Your task to perform on an android device: Open Android settings Image 0: 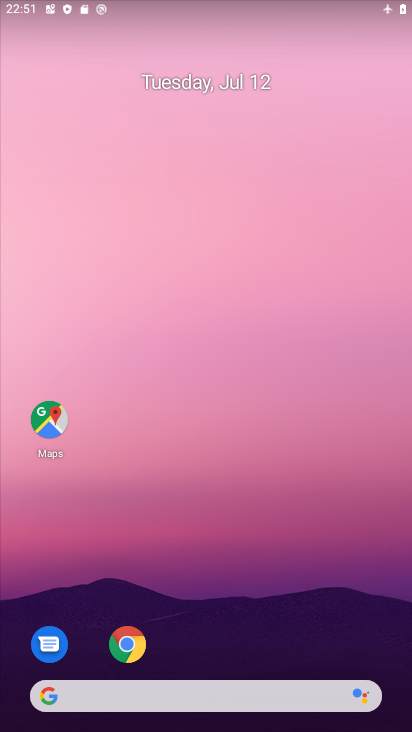
Step 0: drag from (125, 724) to (273, 4)
Your task to perform on an android device: Open Android settings Image 1: 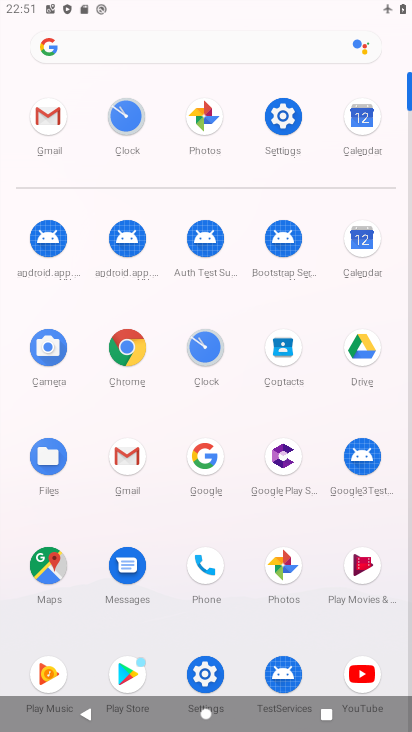
Step 1: click (288, 105)
Your task to perform on an android device: Open Android settings Image 2: 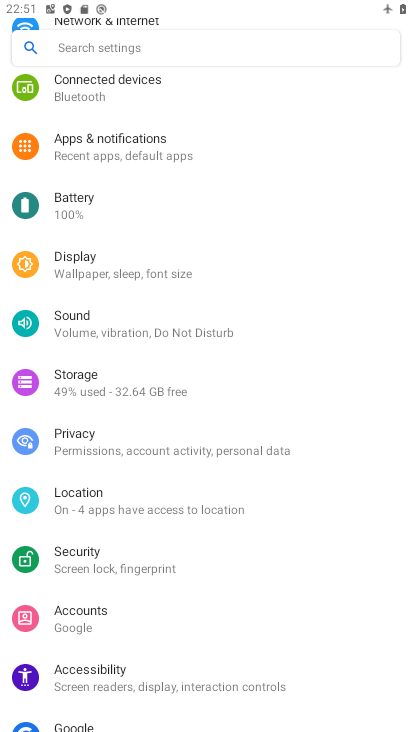
Step 2: drag from (292, 715) to (351, 29)
Your task to perform on an android device: Open Android settings Image 3: 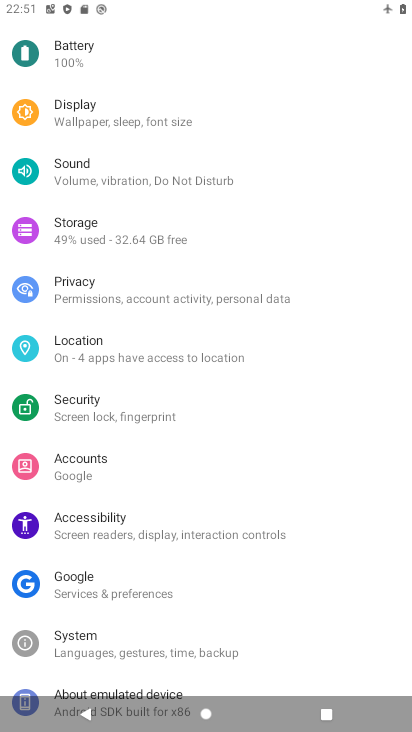
Step 3: drag from (320, 601) to (372, 24)
Your task to perform on an android device: Open Android settings Image 4: 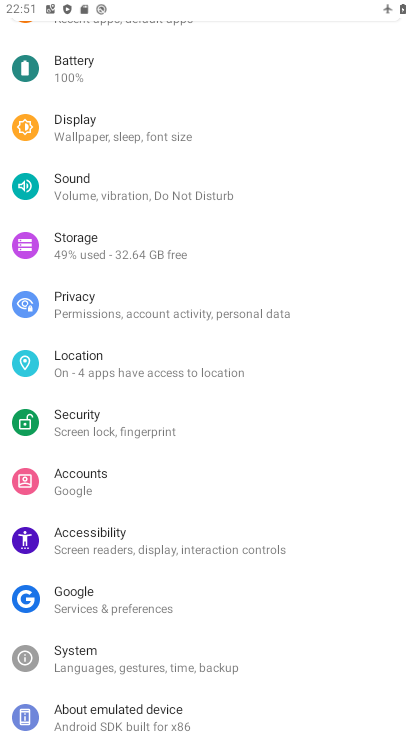
Step 4: drag from (307, 652) to (366, 365)
Your task to perform on an android device: Open Android settings Image 5: 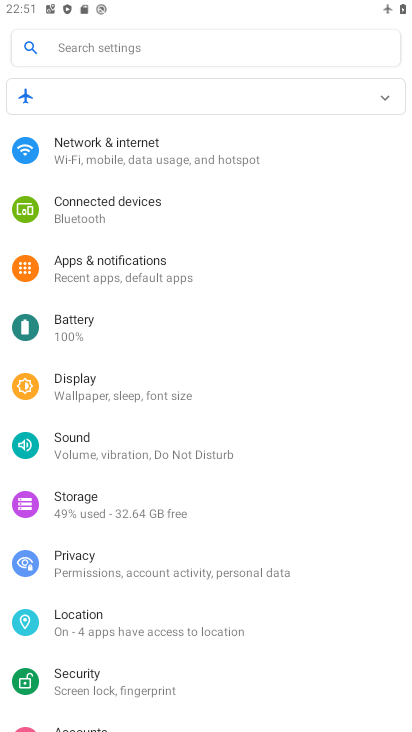
Step 5: drag from (288, 647) to (358, 66)
Your task to perform on an android device: Open Android settings Image 6: 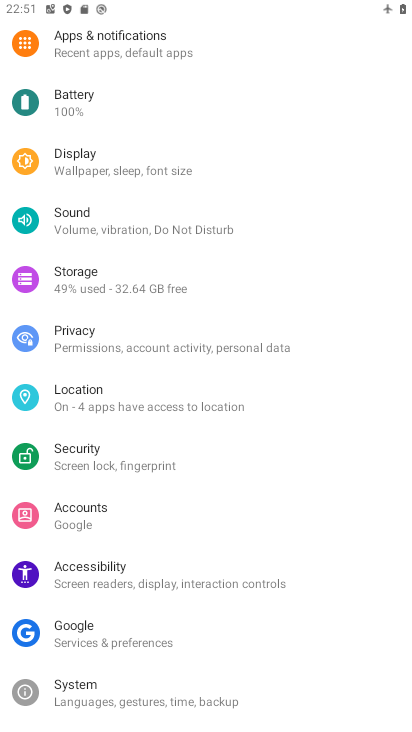
Step 6: drag from (310, 635) to (389, 16)
Your task to perform on an android device: Open Android settings Image 7: 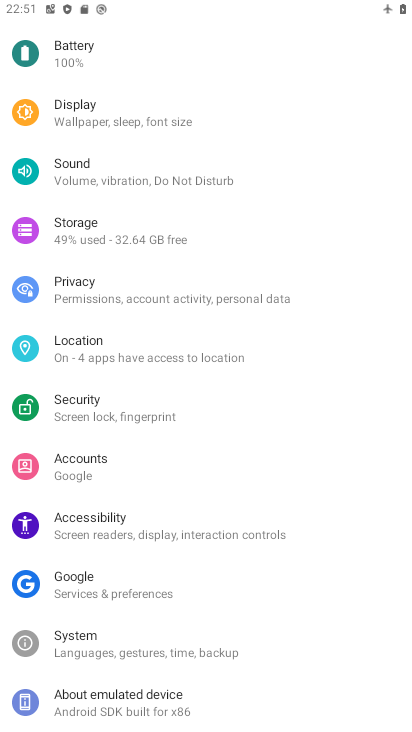
Step 7: drag from (325, 708) to (393, 12)
Your task to perform on an android device: Open Android settings Image 8: 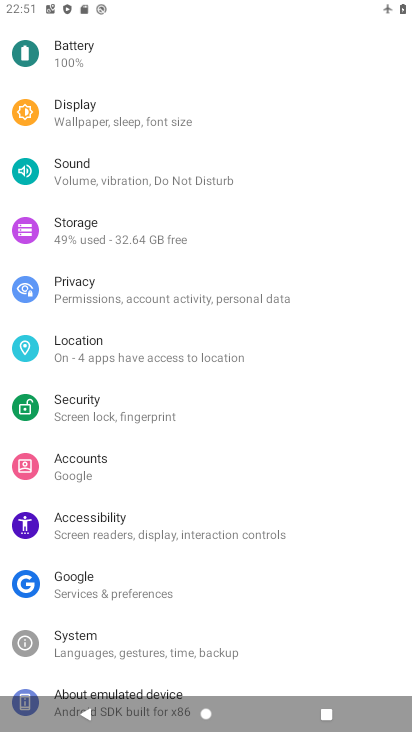
Step 8: click (160, 689)
Your task to perform on an android device: Open Android settings Image 9: 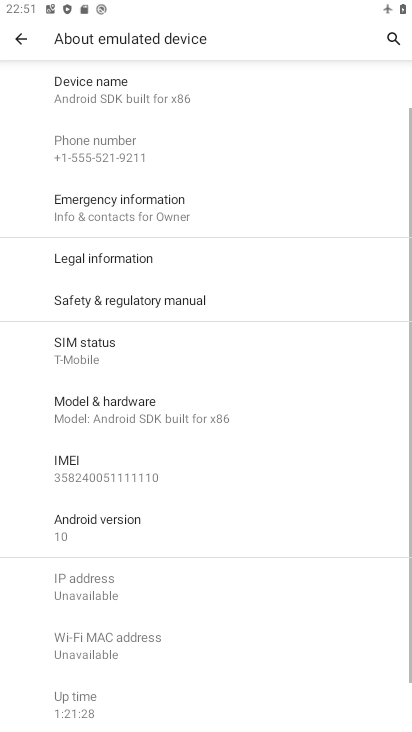
Step 9: task complete